Your task to perform on an android device: turn on improve location accuracy Image 0: 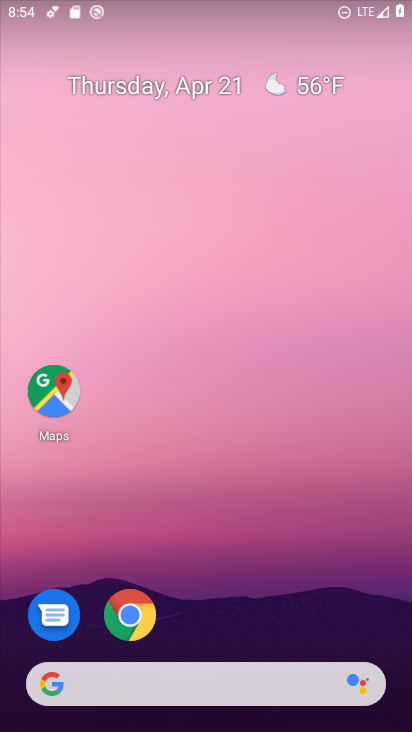
Step 0: drag from (297, 570) to (295, 84)
Your task to perform on an android device: turn on improve location accuracy Image 1: 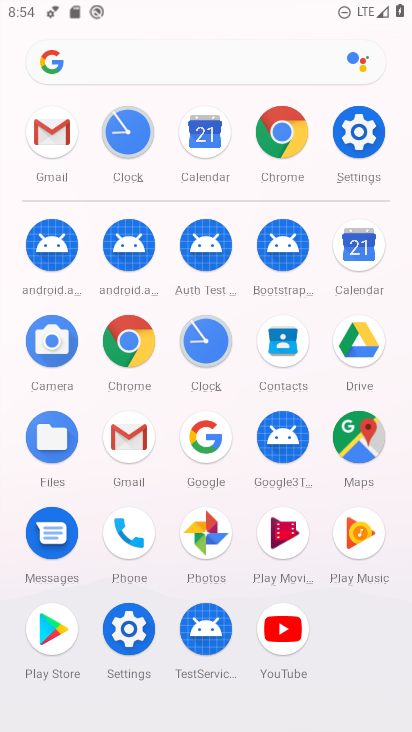
Step 1: click (364, 132)
Your task to perform on an android device: turn on improve location accuracy Image 2: 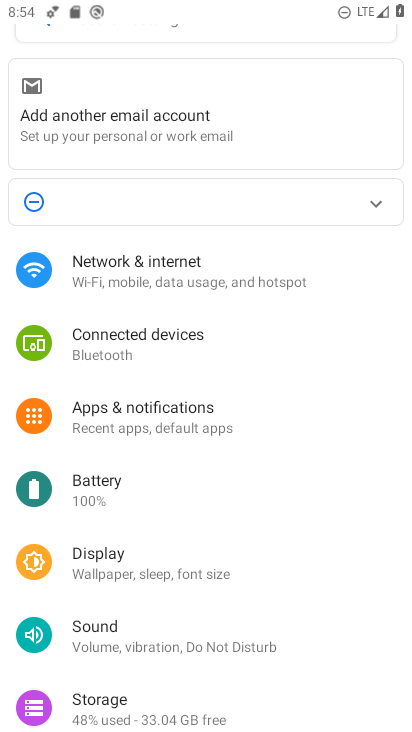
Step 2: drag from (199, 542) to (224, 219)
Your task to perform on an android device: turn on improve location accuracy Image 3: 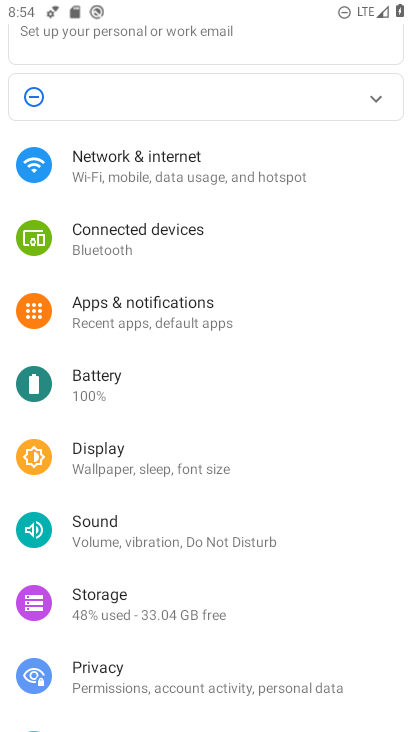
Step 3: drag from (212, 631) to (212, 295)
Your task to perform on an android device: turn on improve location accuracy Image 4: 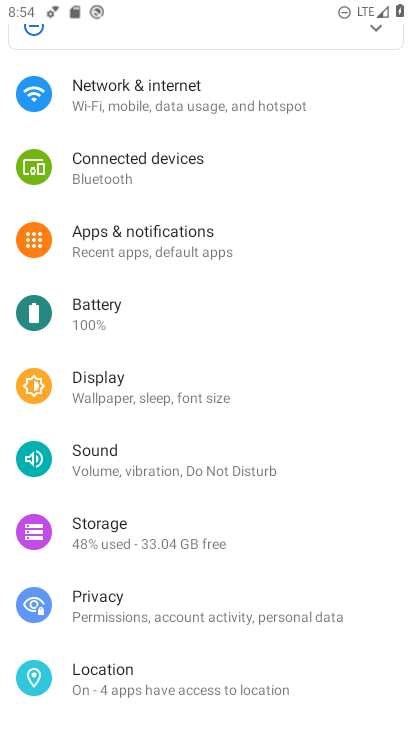
Step 4: click (161, 678)
Your task to perform on an android device: turn on improve location accuracy Image 5: 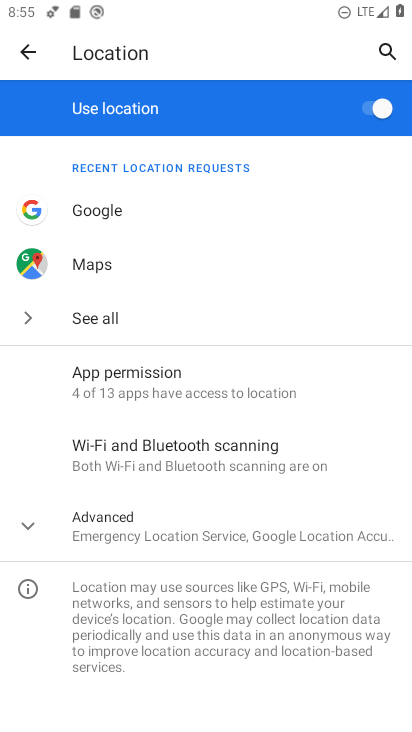
Step 5: click (182, 524)
Your task to perform on an android device: turn on improve location accuracy Image 6: 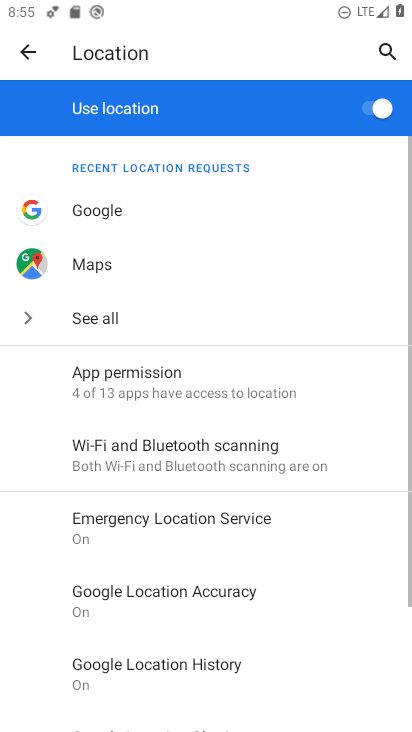
Step 6: drag from (159, 581) to (150, 201)
Your task to perform on an android device: turn on improve location accuracy Image 7: 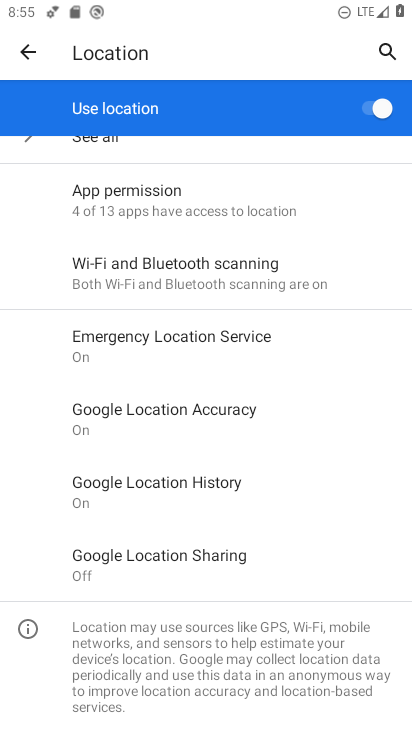
Step 7: click (163, 414)
Your task to perform on an android device: turn on improve location accuracy Image 8: 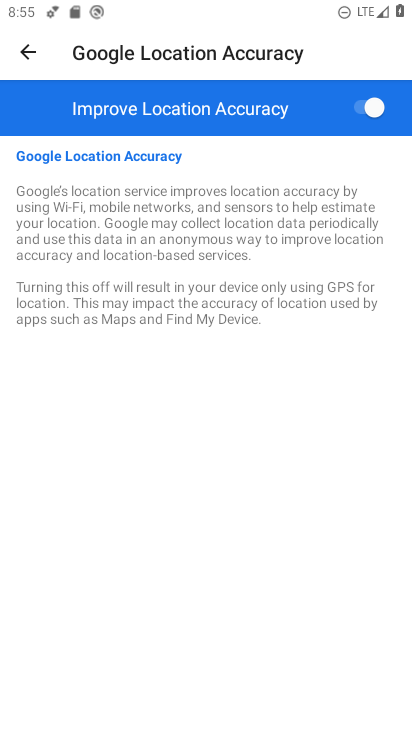
Step 8: task complete